Your task to perform on an android device: turn notification dots on Image 0: 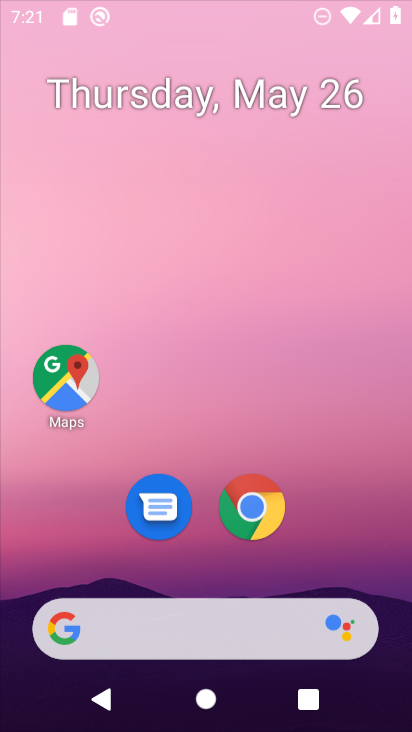
Step 0: drag from (187, 2) to (225, 14)
Your task to perform on an android device: turn notification dots on Image 1: 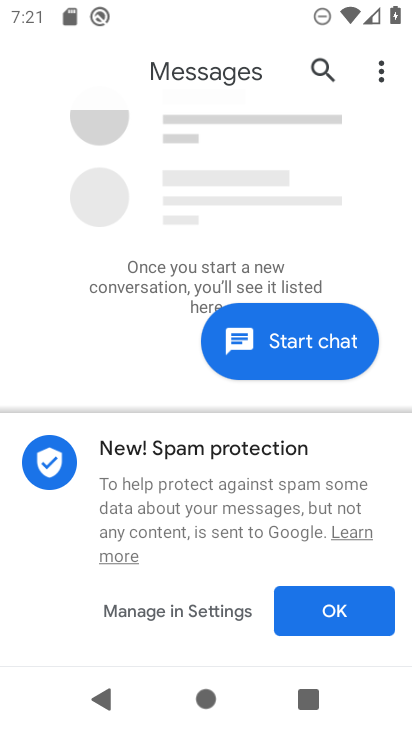
Step 1: press home button
Your task to perform on an android device: turn notification dots on Image 2: 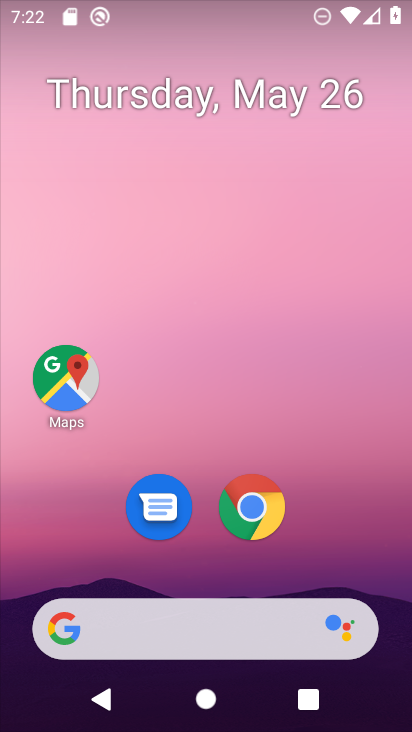
Step 2: drag from (211, 575) to (222, 43)
Your task to perform on an android device: turn notification dots on Image 3: 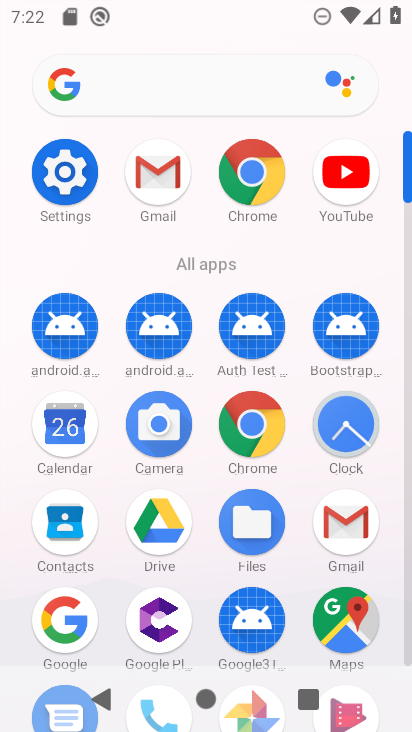
Step 3: click (58, 187)
Your task to perform on an android device: turn notification dots on Image 4: 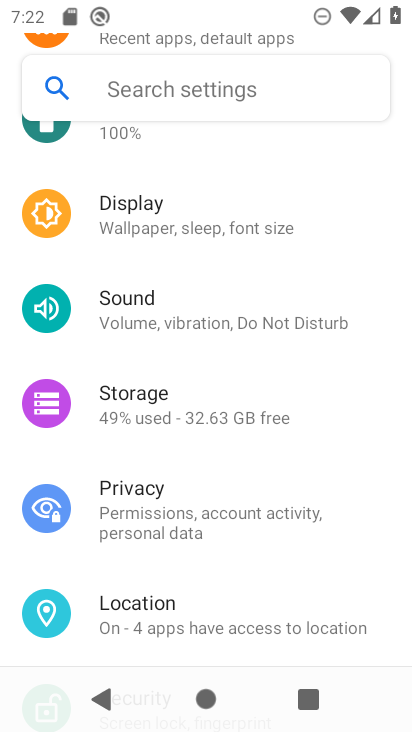
Step 4: drag from (131, 165) to (121, 527)
Your task to perform on an android device: turn notification dots on Image 5: 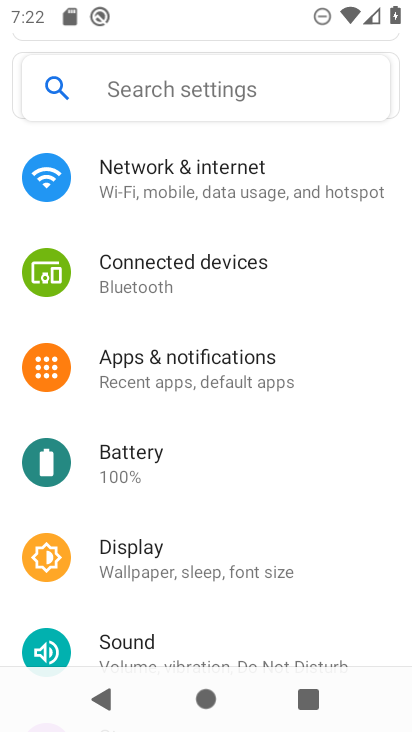
Step 5: click (226, 383)
Your task to perform on an android device: turn notification dots on Image 6: 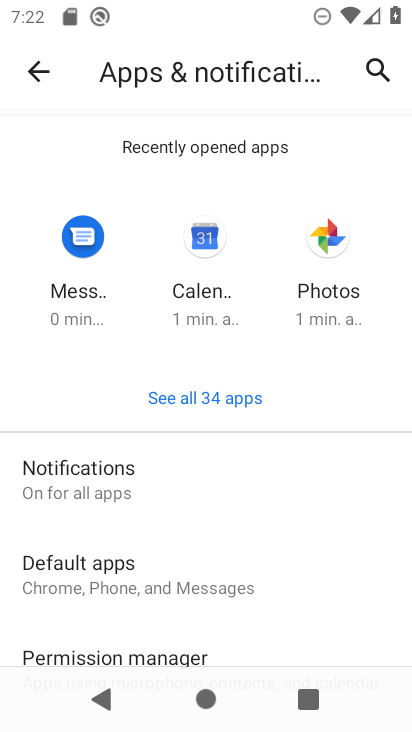
Step 6: click (57, 488)
Your task to perform on an android device: turn notification dots on Image 7: 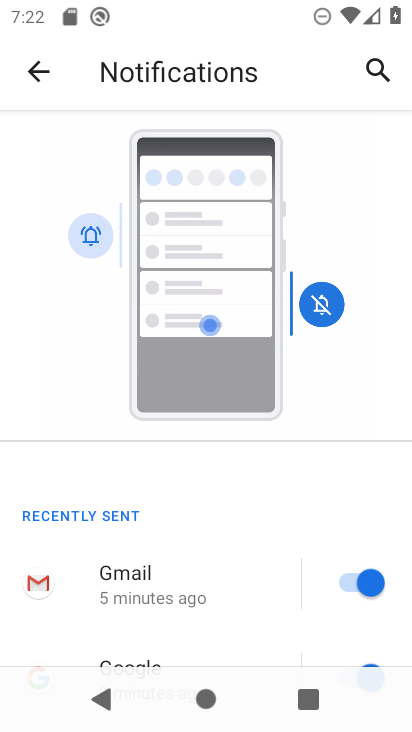
Step 7: drag from (204, 587) to (193, 147)
Your task to perform on an android device: turn notification dots on Image 8: 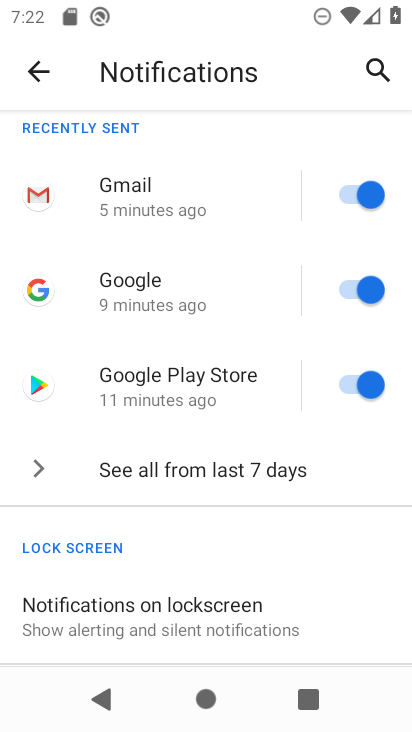
Step 8: drag from (151, 561) to (185, 15)
Your task to perform on an android device: turn notification dots on Image 9: 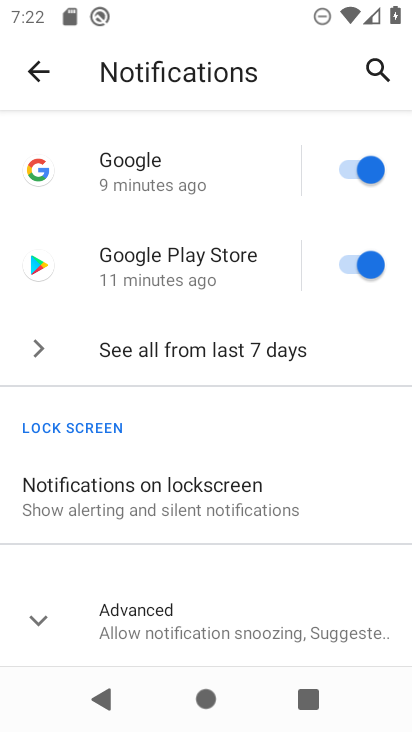
Step 9: click (127, 631)
Your task to perform on an android device: turn notification dots on Image 10: 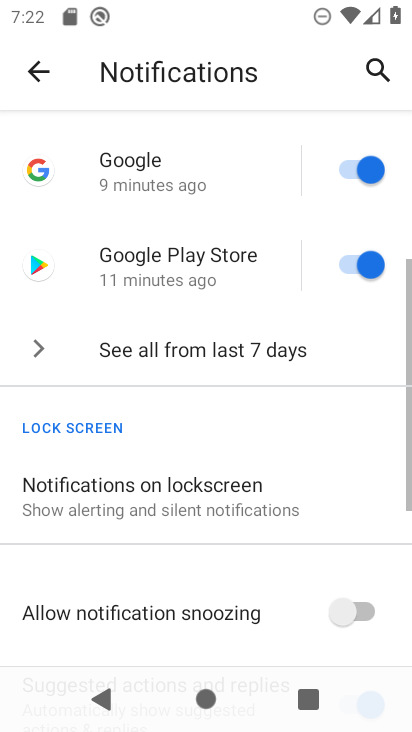
Step 10: drag from (129, 620) to (171, 299)
Your task to perform on an android device: turn notification dots on Image 11: 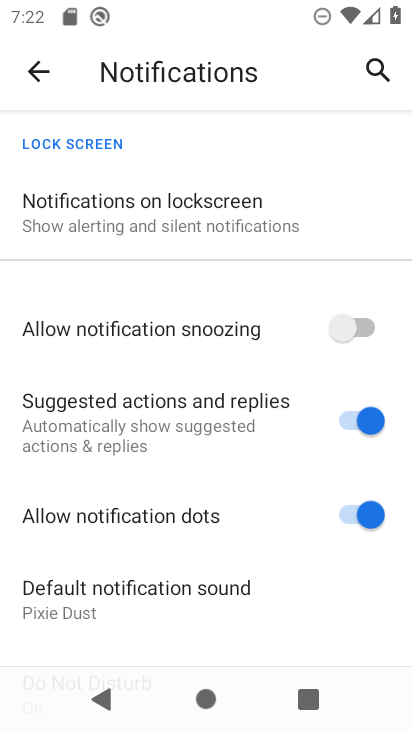
Step 11: click (352, 516)
Your task to perform on an android device: turn notification dots on Image 12: 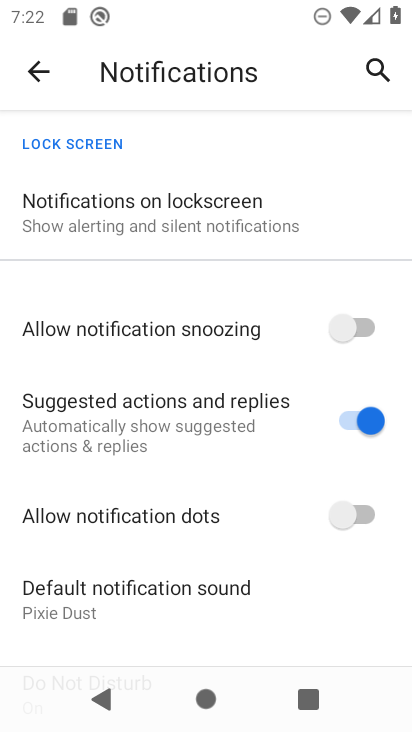
Step 12: click (363, 522)
Your task to perform on an android device: turn notification dots on Image 13: 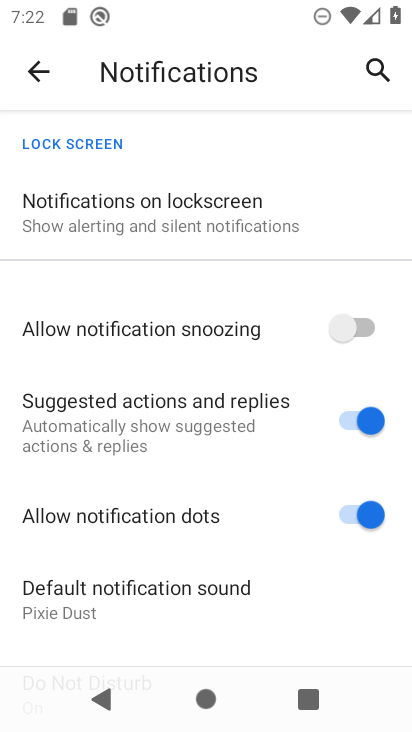
Step 13: task complete